Your task to perform on an android device: Open wifi settings Image 0: 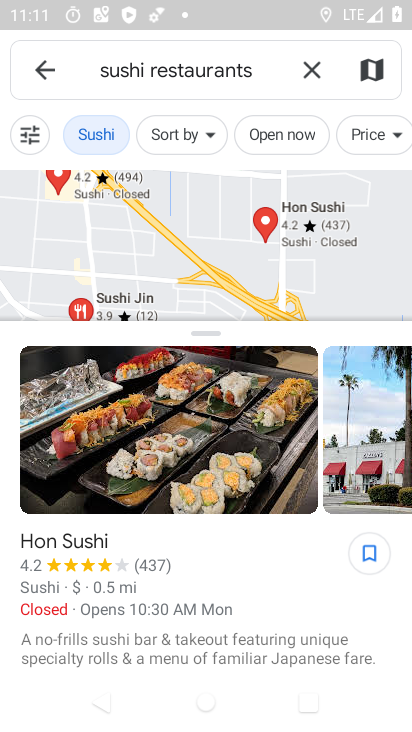
Step 0: press home button
Your task to perform on an android device: Open wifi settings Image 1: 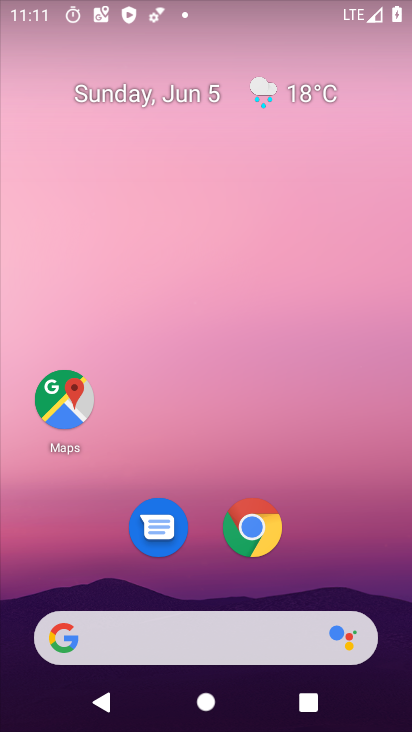
Step 1: drag from (331, 358) to (261, 0)
Your task to perform on an android device: Open wifi settings Image 2: 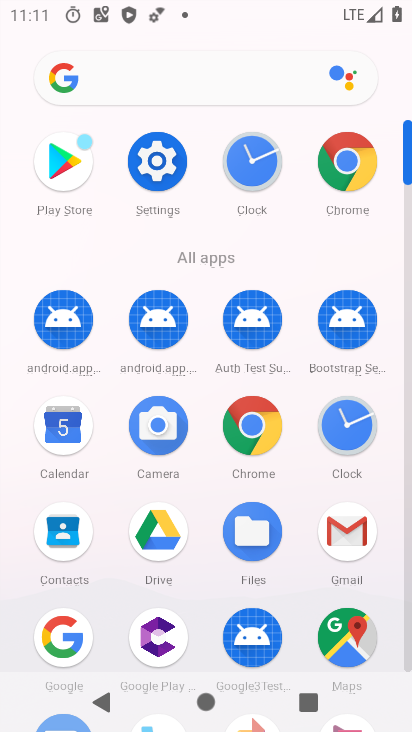
Step 2: click (156, 171)
Your task to perform on an android device: Open wifi settings Image 3: 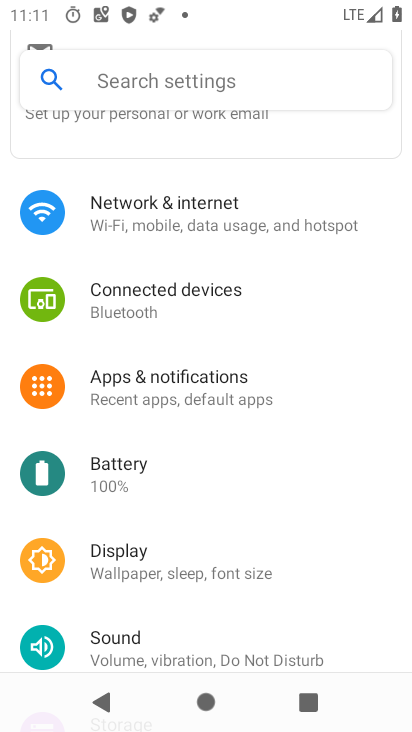
Step 3: click (232, 215)
Your task to perform on an android device: Open wifi settings Image 4: 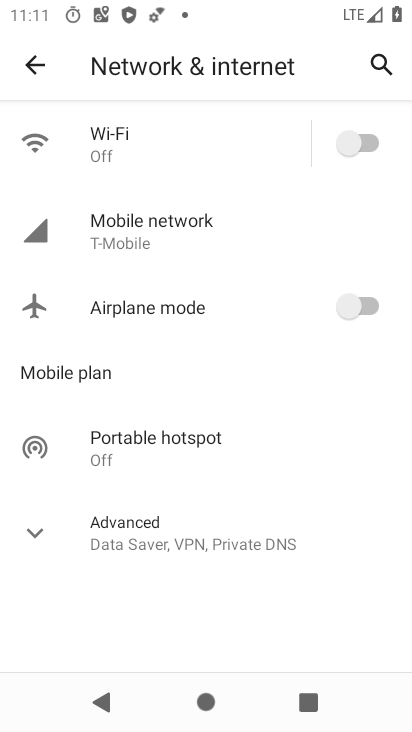
Step 4: click (253, 145)
Your task to perform on an android device: Open wifi settings Image 5: 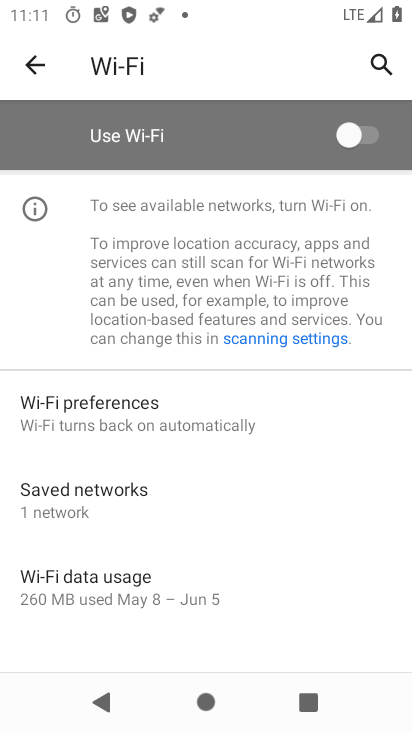
Step 5: task complete